Your task to perform on an android device: Open CNN.com Image 0: 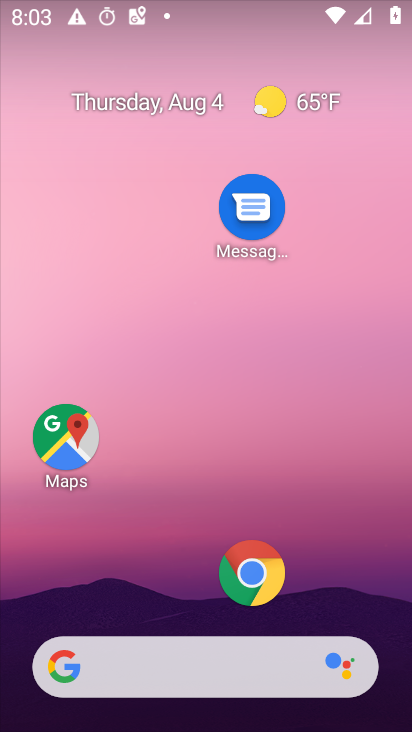
Step 0: click (54, 650)
Your task to perform on an android device: Open CNN.com Image 1: 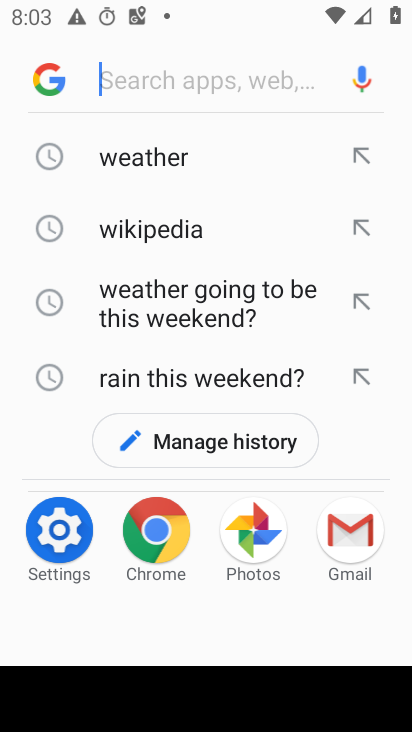
Step 1: type "CNN.com"
Your task to perform on an android device: Open CNN.com Image 2: 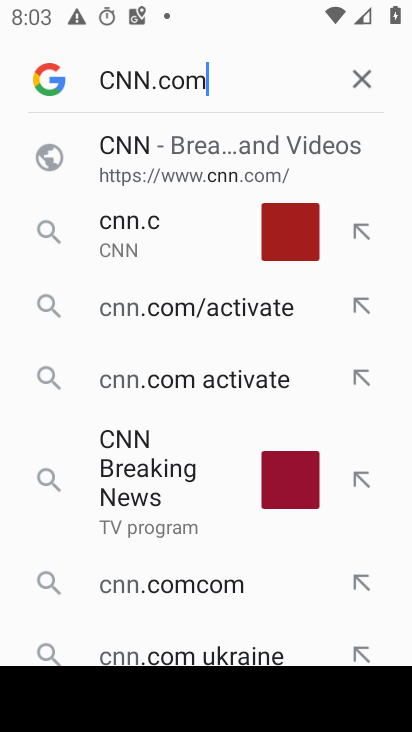
Step 2: press enter
Your task to perform on an android device: Open CNN.com Image 3: 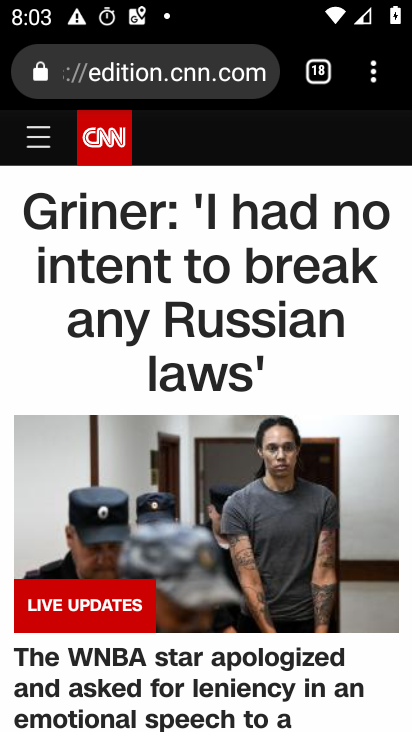
Step 3: task complete